Your task to perform on an android device: Is it going to rain tomorrow? Image 0: 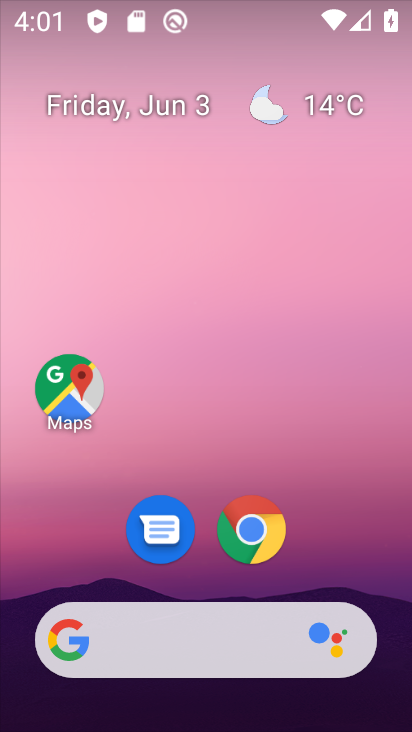
Step 0: click (348, 70)
Your task to perform on an android device: Is it going to rain tomorrow? Image 1: 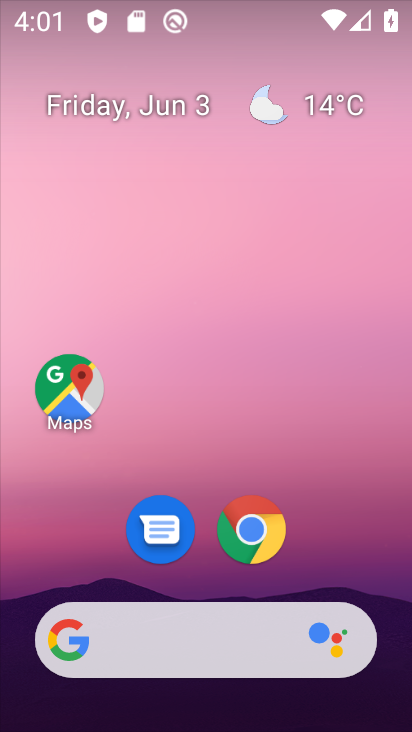
Step 1: click (323, 105)
Your task to perform on an android device: Is it going to rain tomorrow? Image 2: 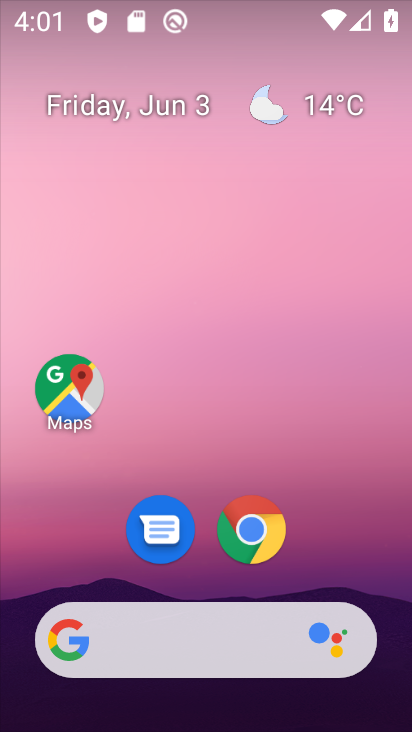
Step 2: click (324, 98)
Your task to perform on an android device: Is it going to rain tomorrow? Image 3: 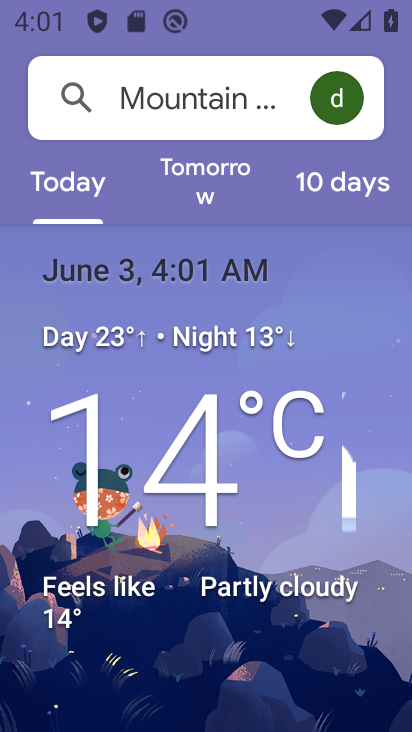
Step 3: click (187, 210)
Your task to perform on an android device: Is it going to rain tomorrow? Image 4: 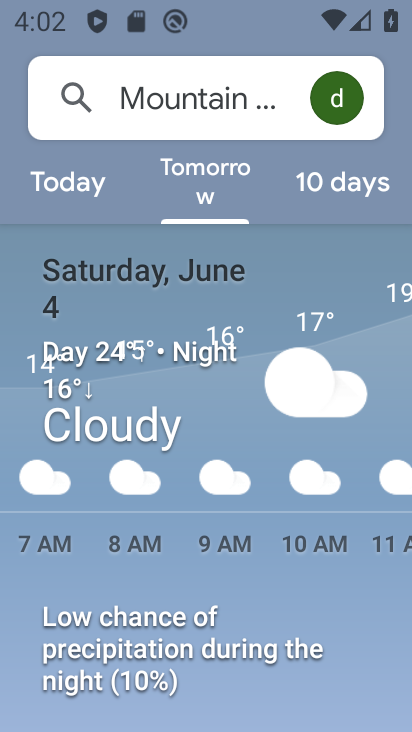
Step 4: task complete